Your task to perform on an android device: turn on javascript in the chrome app Image 0: 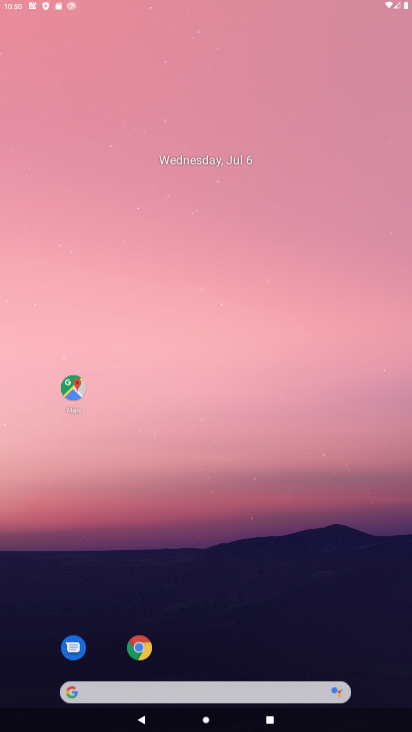
Step 0: drag from (351, 647) to (158, 11)
Your task to perform on an android device: turn on javascript in the chrome app Image 1: 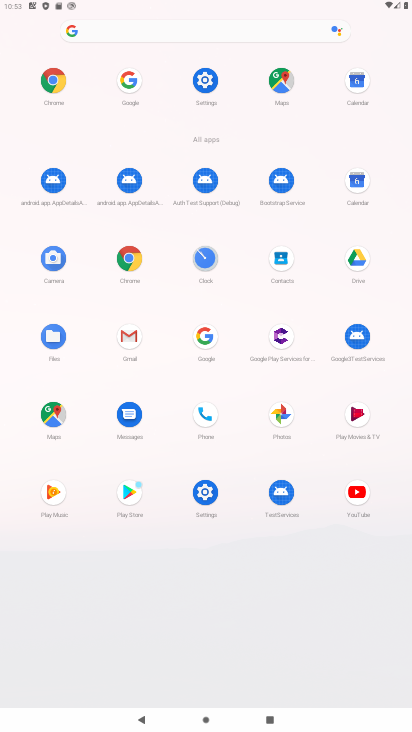
Step 1: click (39, 78)
Your task to perform on an android device: turn on javascript in the chrome app Image 2: 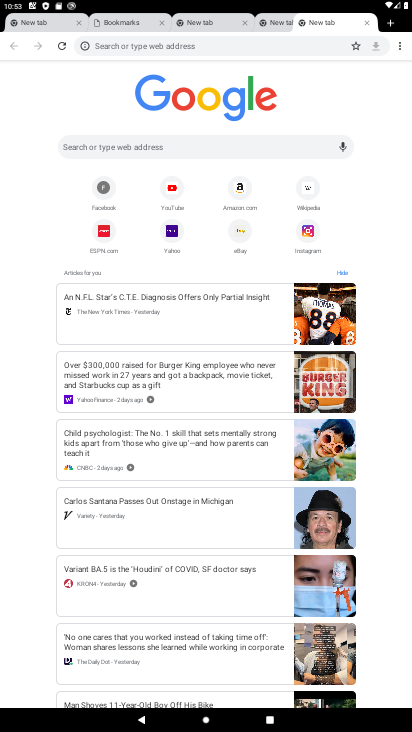
Step 2: click (399, 43)
Your task to perform on an android device: turn on javascript in the chrome app Image 3: 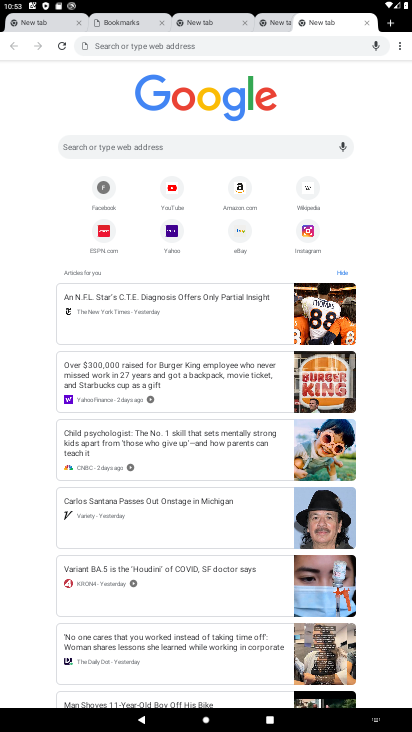
Step 3: click (399, 43)
Your task to perform on an android device: turn on javascript in the chrome app Image 4: 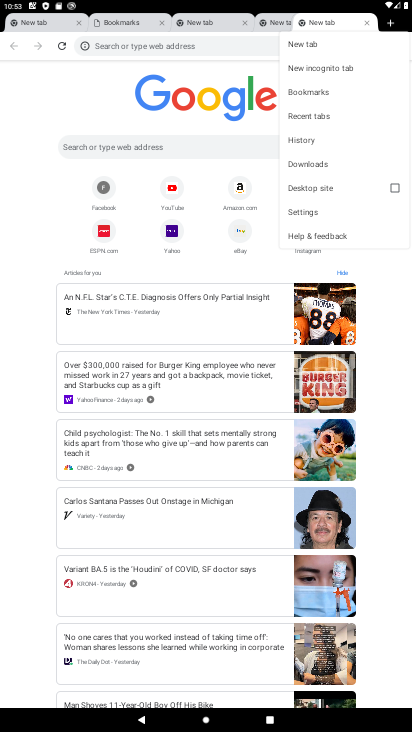
Step 4: click (294, 213)
Your task to perform on an android device: turn on javascript in the chrome app Image 5: 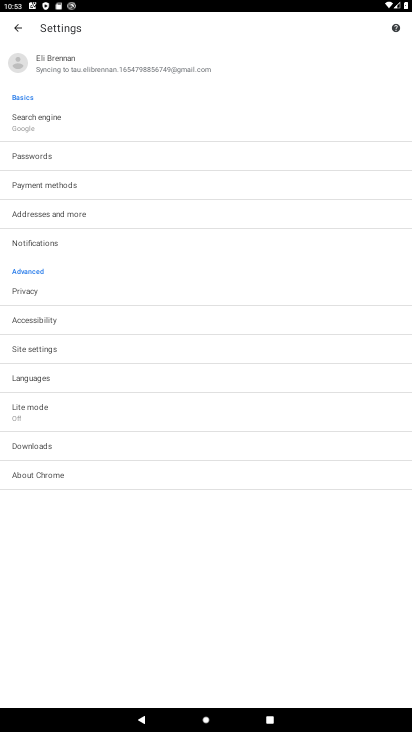
Step 5: click (49, 347)
Your task to perform on an android device: turn on javascript in the chrome app Image 6: 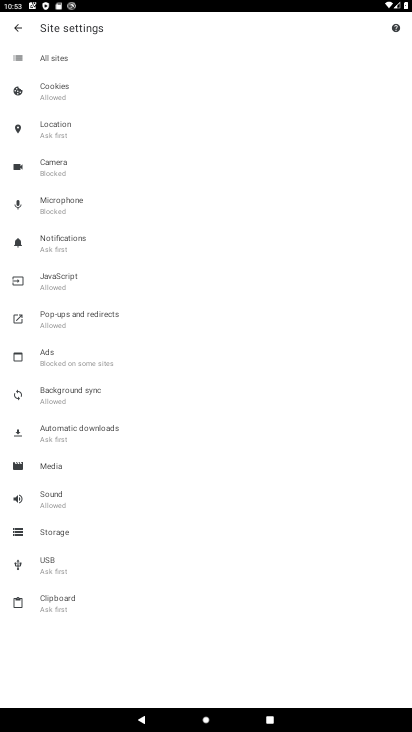
Step 6: click (110, 278)
Your task to perform on an android device: turn on javascript in the chrome app Image 7: 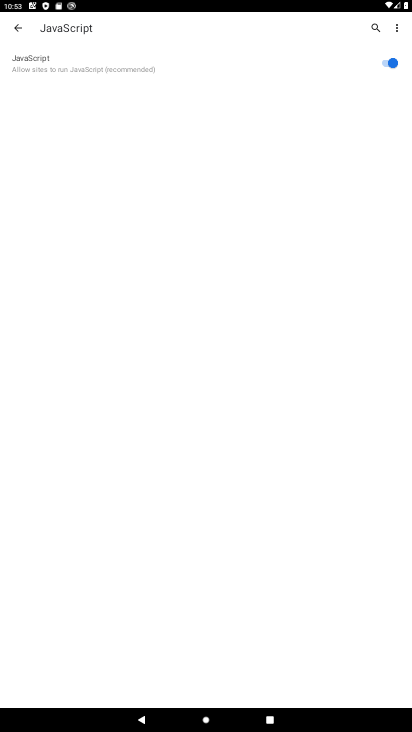
Step 7: task complete